Your task to perform on an android device: Open calendar and show me the fourth week of next month Image 0: 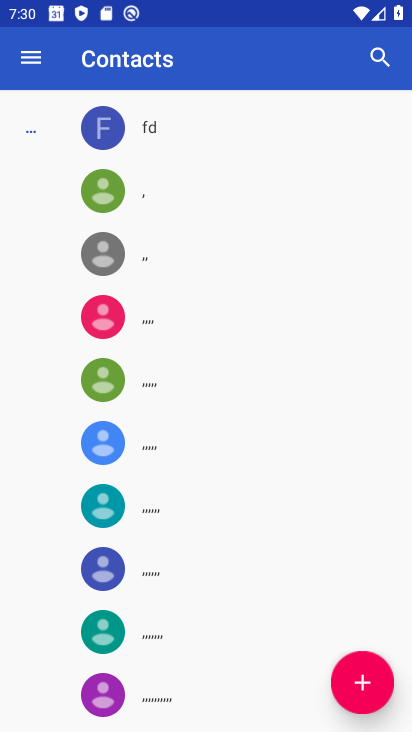
Step 0: press home button
Your task to perform on an android device: Open calendar and show me the fourth week of next month Image 1: 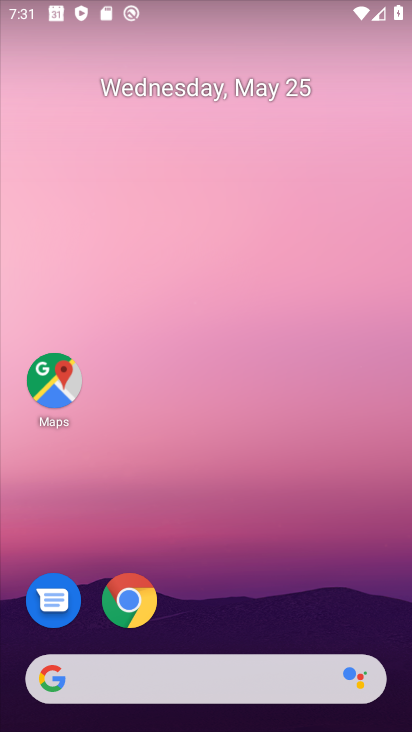
Step 1: drag from (348, 593) to (313, 148)
Your task to perform on an android device: Open calendar and show me the fourth week of next month Image 2: 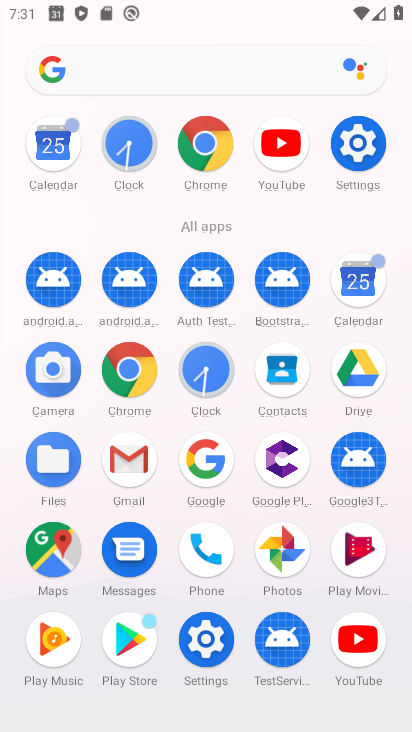
Step 2: click (351, 296)
Your task to perform on an android device: Open calendar and show me the fourth week of next month Image 3: 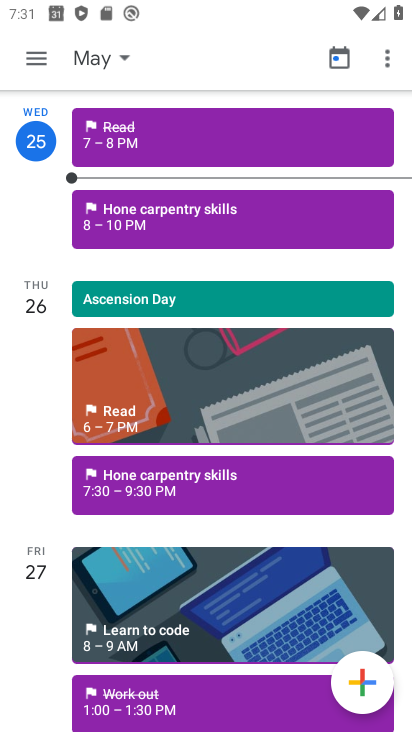
Step 3: click (91, 62)
Your task to perform on an android device: Open calendar and show me the fourth week of next month Image 4: 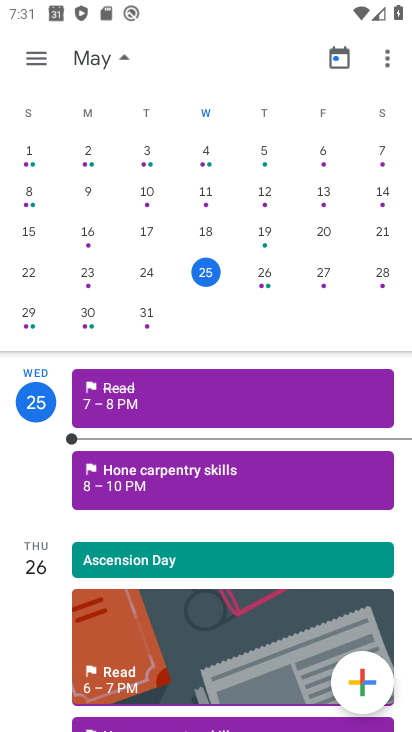
Step 4: drag from (345, 194) to (0, 198)
Your task to perform on an android device: Open calendar and show me the fourth week of next month Image 5: 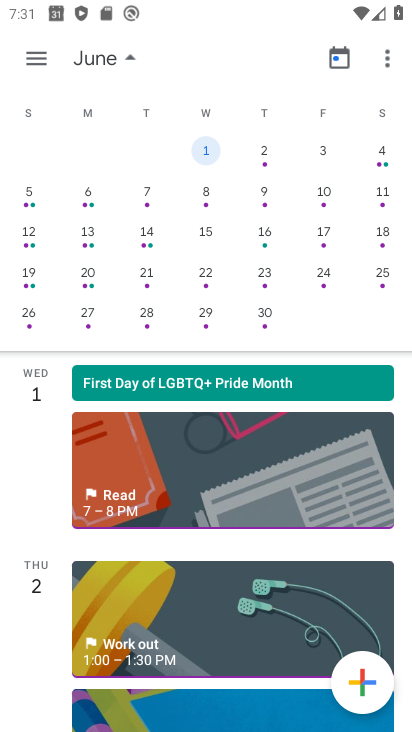
Step 5: click (28, 283)
Your task to perform on an android device: Open calendar and show me the fourth week of next month Image 6: 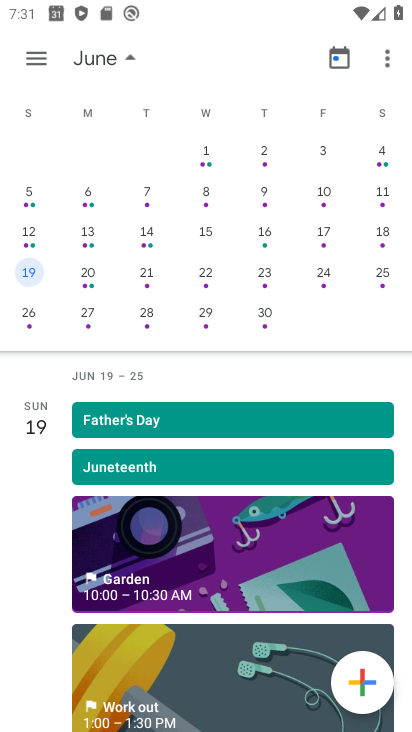
Step 6: task complete